Your task to perform on an android device: turn on priority inbox in the gmail app Image 0: 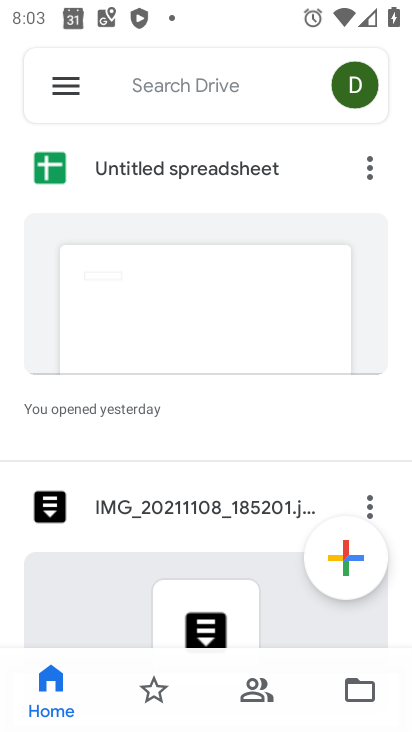
Step 0: press home button
Your task to perform on an android device: turn on priority inbox in the gmail app Image 1: 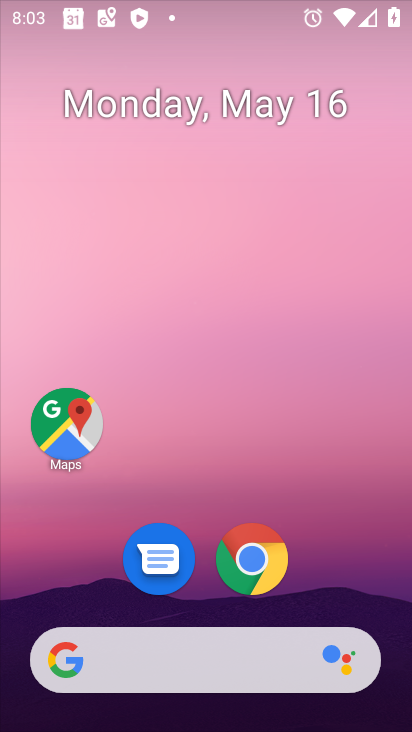
Step 1: drag from (289, 592) to (292, 247)
Your task to perform on an android device: turn on priority inbox in the gmail app Image 2: 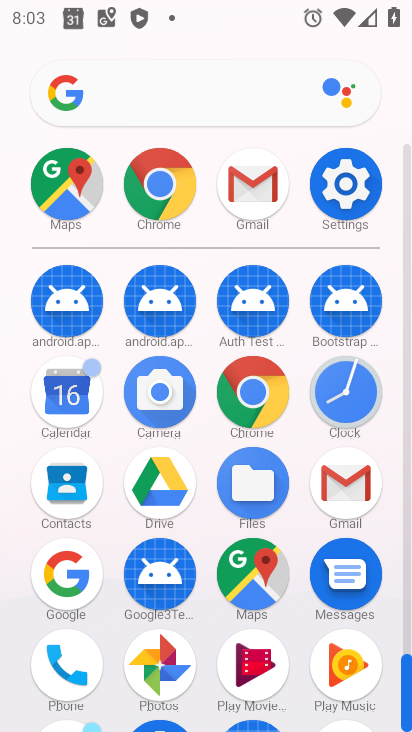
Step 2: click (338, 507)
Your task to perform on an android device: turn on priority inbox in the gmail app Image 3: 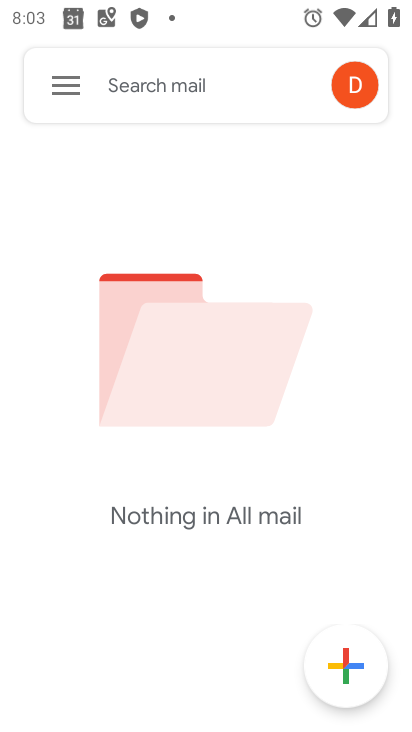
Step 3: click (53, 85)
Your task to perform on an android device: turn on priority inbox in the gmail app Image 4: 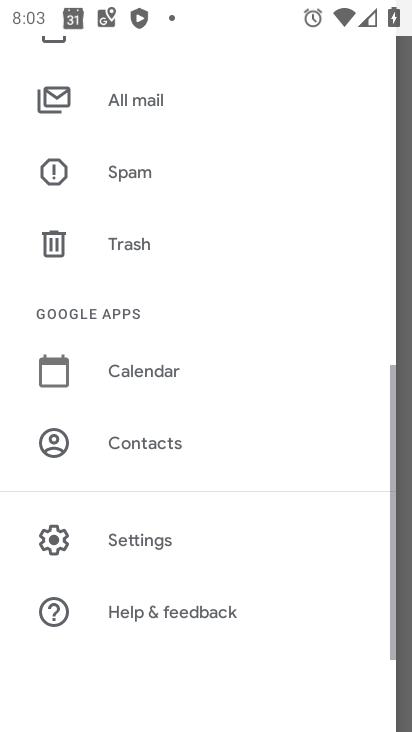
Step 4: click (173, 535)
Your task to perform on an android device: turn on priority inbox in the gmail app Image 5: 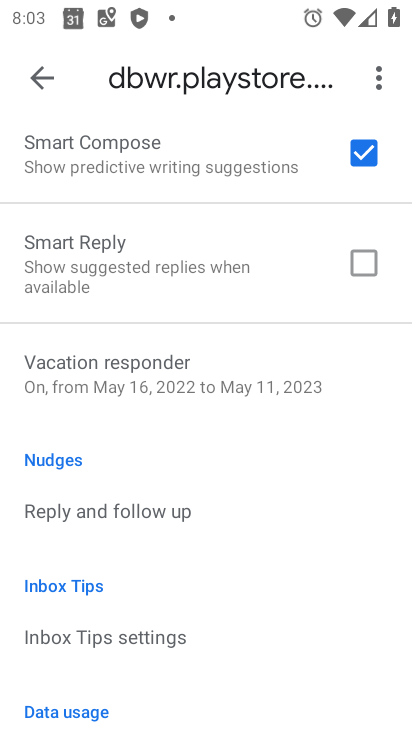
Step 5: drag from (178, 182) to (198, 575)
Your task to perform on an android device: turn on priority inbox in the gmail app Image 6: 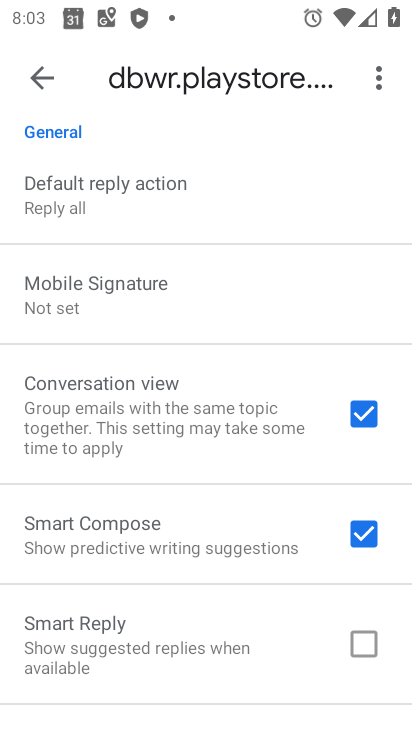
Step 6: drag from (178, 243) to (192, 517)
Your task to perform on an android device: turn on priority inbox in the gmail app Image 7: 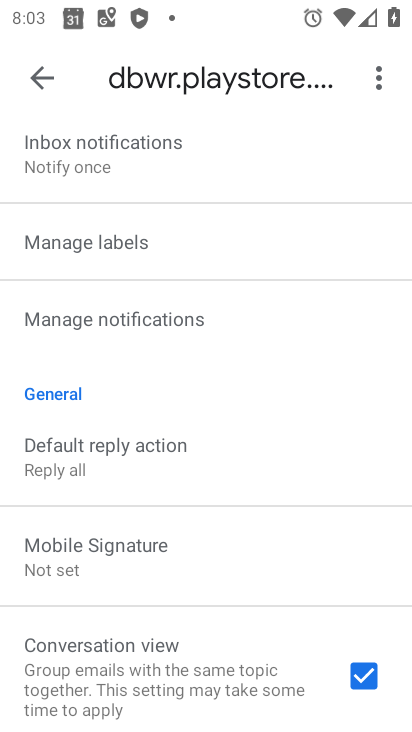
Step 7: drag from (206, 212) to (180, 581)
Your task to perform on an android device: turn on priority inbox in the gmail app Image 8: 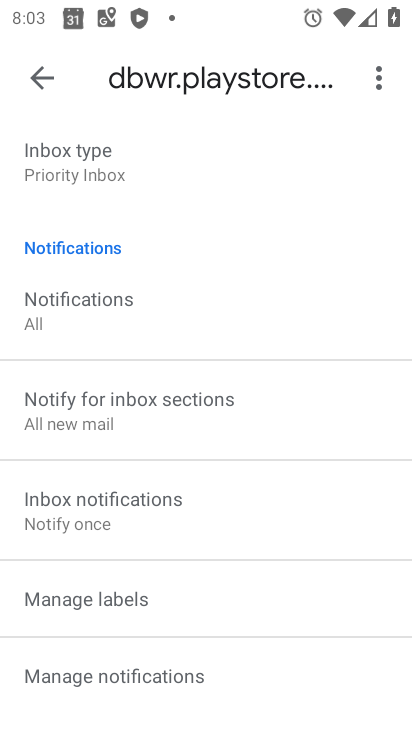
Step 8: click (83, 169)
Your task to perform on an android device: turn on priority inbox in the gmail app Image 9: 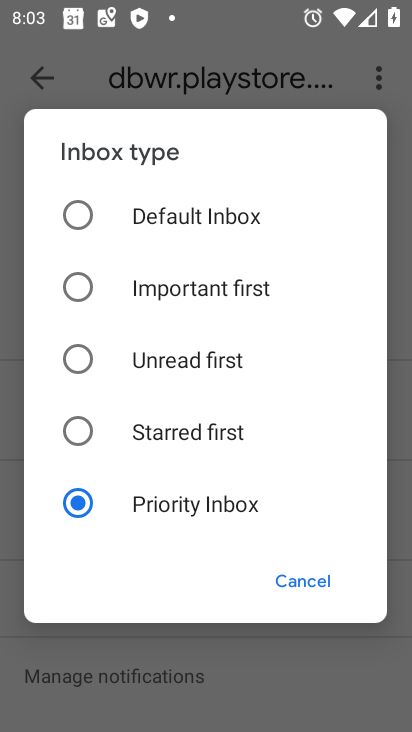
Step 9: task complete